Your task to perform on an android device: Open Youtube and go to "Your channel" Image 0: 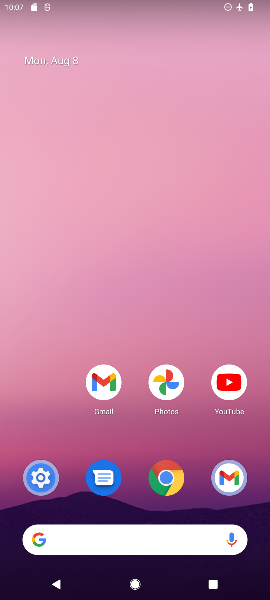
Step 0: drag from (172, 525) to (109, 102)
Your task to perform on an android device: Open Youtube and go to "Your channel" Image 1: 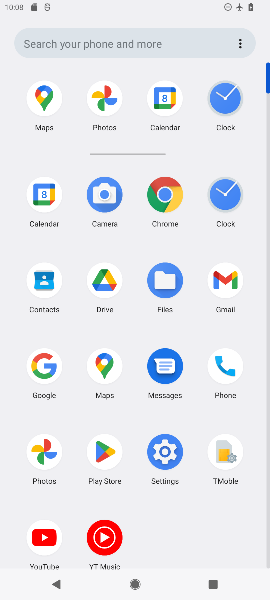
Step 1: click (49, 532)
Your task to perform on an android device: Open Youtube and go to "Your channel" Image 2: 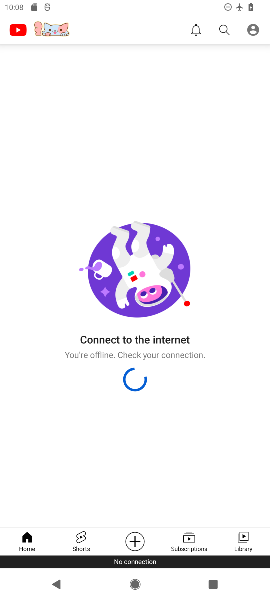
Step 2: click (256, 34)
Your task to perform on an android device: Open Youtube and go to "Your channel" Image 3: 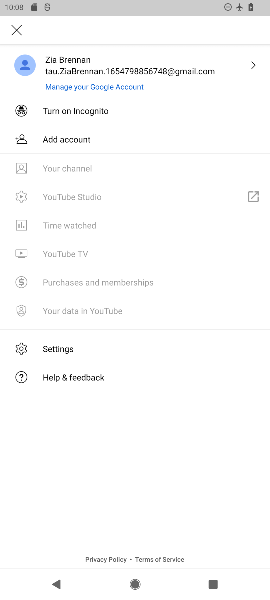
Step 3: task complete